Your task to perform on an android device: allow notifications from all sites in the chrome app Image 0: 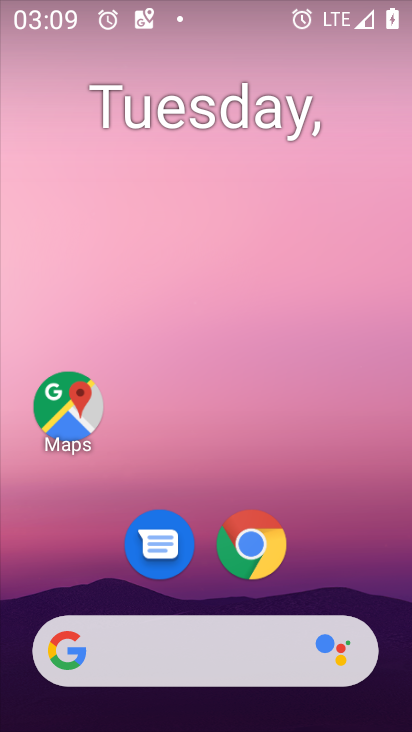
Step 0: drag from (342, 554) to (235, 25)
Your task to perform on an android device: allow notifications from all sites in the chrome app Image 1: 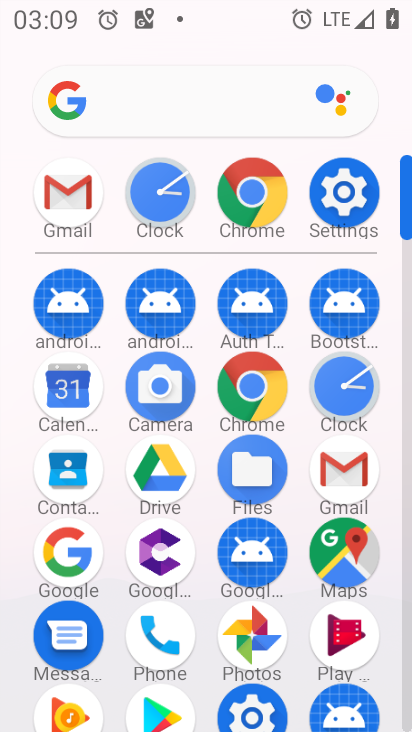
Step 1: drag from (16, 579) to (26, 243)
Your task to perform on an android device: allow notifications from all sites in the chrome app Image 2: 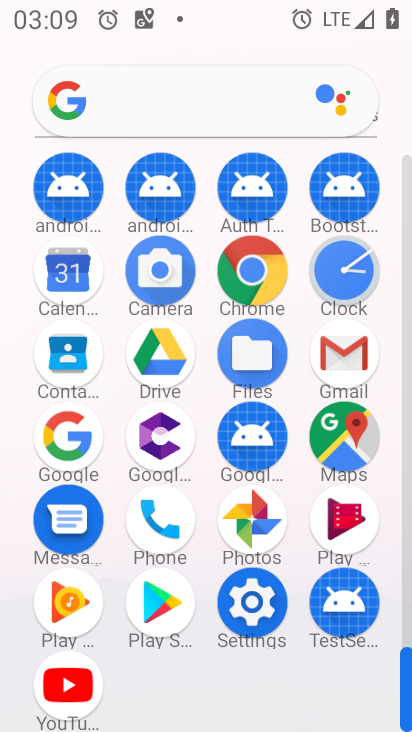
Step 2: click (248, 602)
Your task to perform on an android device: allow notifications from all sites in the chrome app Image 3: 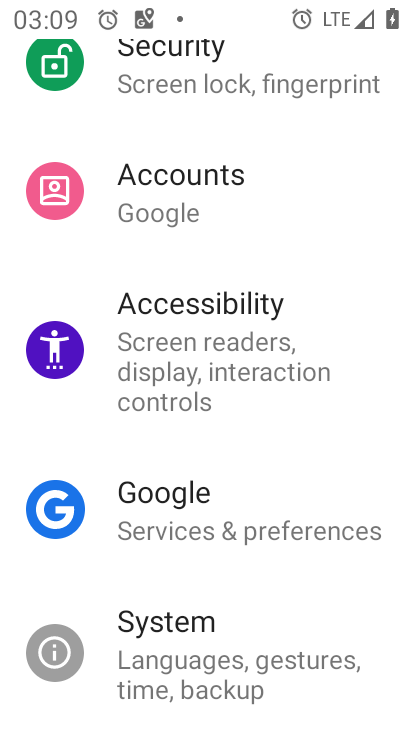
Step 3: drag from (322, 610) to (285, 189)
Your task to perform on an android device: allow notifications from all sites in the chrome app Image 4: 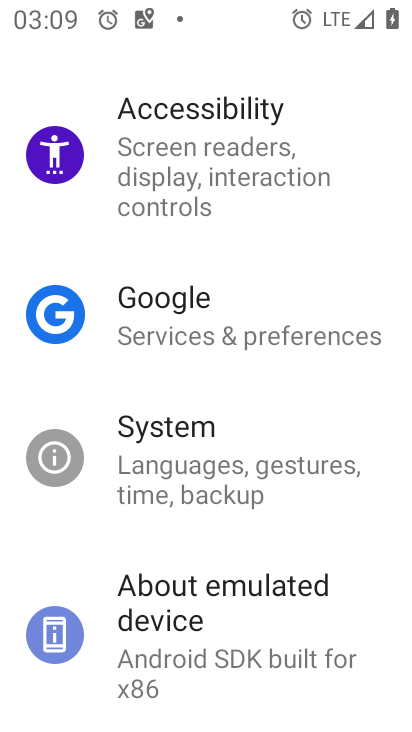
Step 4: press back button
Your task to perform on an android device: allow notifications from all sites in the chrome app Image 5: 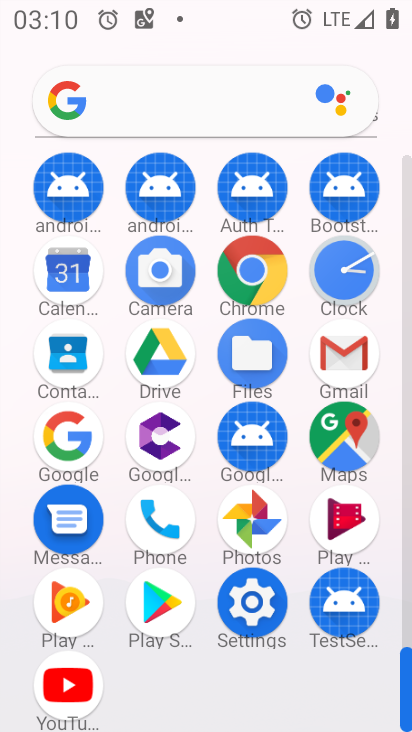
Step 5: click (248, 265)
Your task to perform on an android device: allow notifications from all sites in the chrome app Image 6: 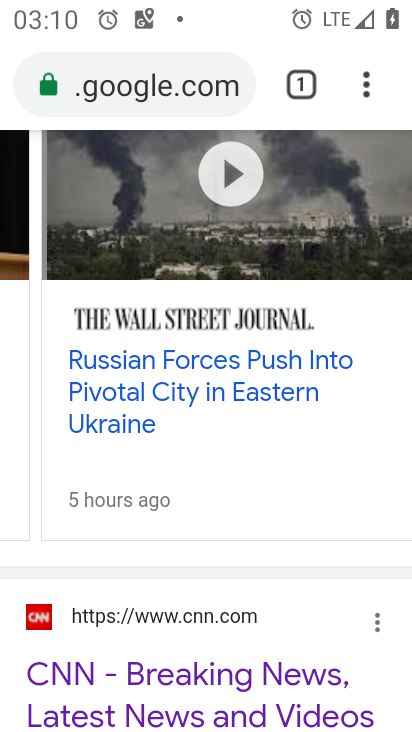
Step 6: drag from (368, 76) to (196, 573)
Your task to perform on an android device: allow notifications from all sites in the chrome app Image 7: 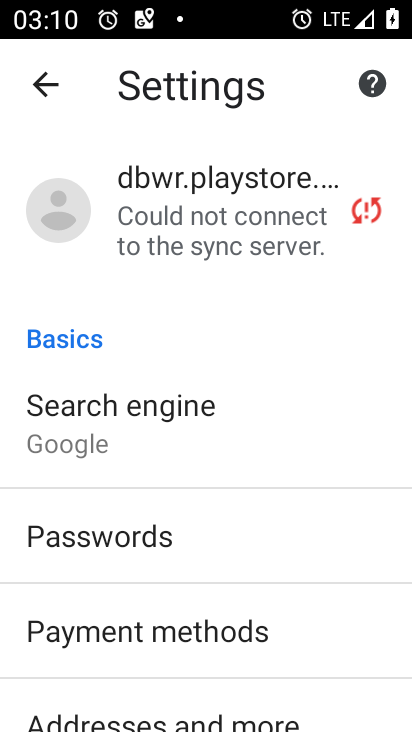
Step 7: drag from (239, 563) to (218, 128)
Your task to perform on an android device: allow notifications from all sites in the chrome app Image 8: 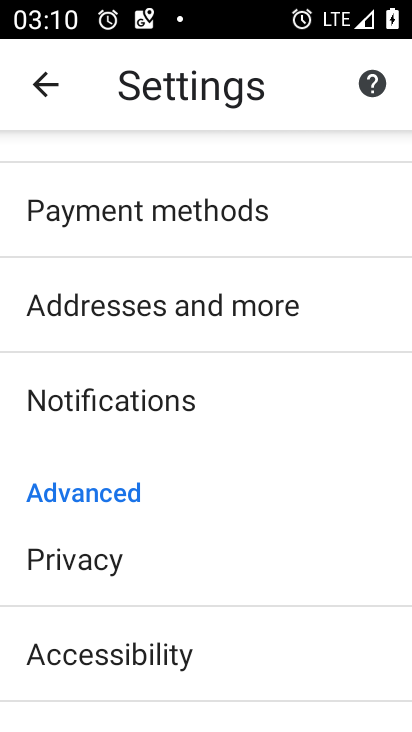
Step 8: drag from (247, 610) to (248, 208)
Your task to perform on an android device: allow notifications from all sites in the chrome app Image 9: 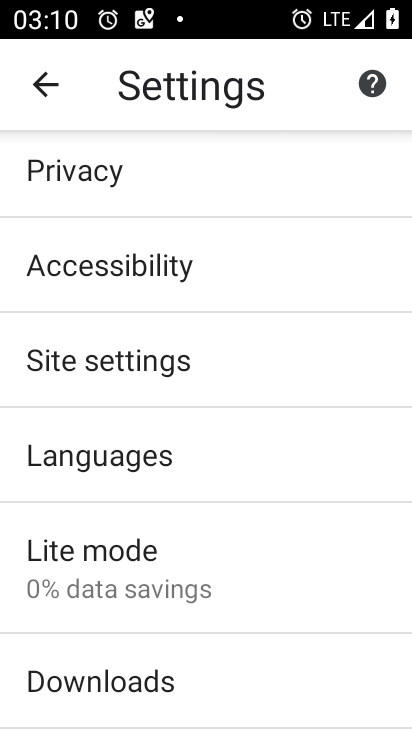
Step 9: drag from (191, 576) to (227, 228)
Your task to perform on an android device: allow notifications from all sites in the chrome app Image 10: 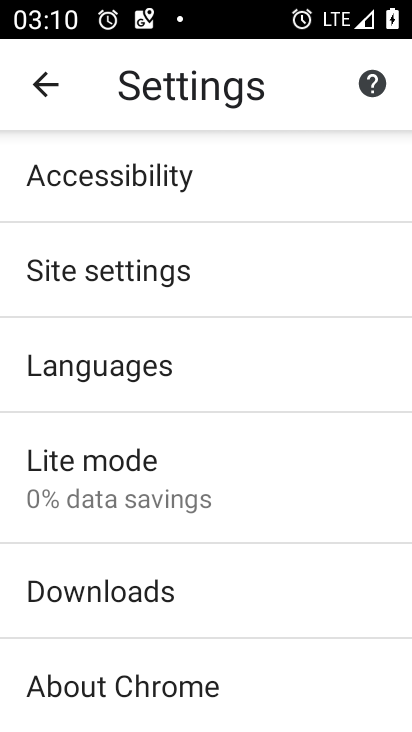
Step 10: drag from (240, 252) to (228, 572)
Your task to perform on an android device: allow notifications from all sites in the chrome app Image 11: 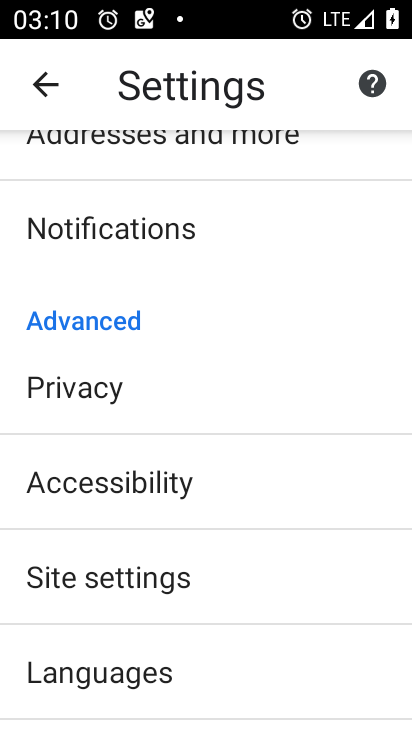
Step 11: click (164, 222)
Your task to perform on an android device: allow notifications from all sites in the chrome app Image 12: 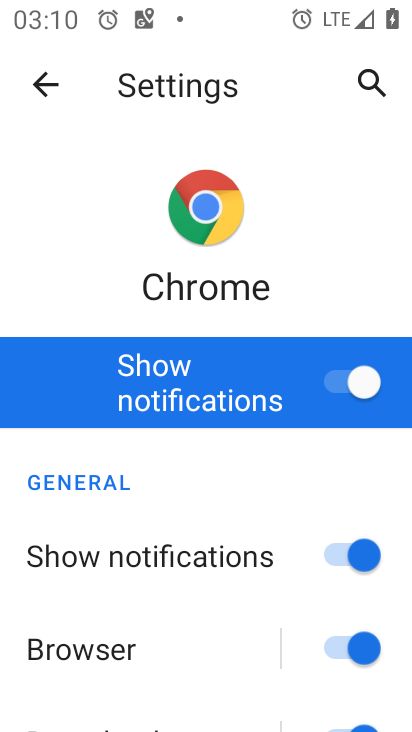
Step 12: drag from (210, 659) to (240, 180)
Your task to perform on an android device: allow notifications from all sites in the chrome app Image 13: 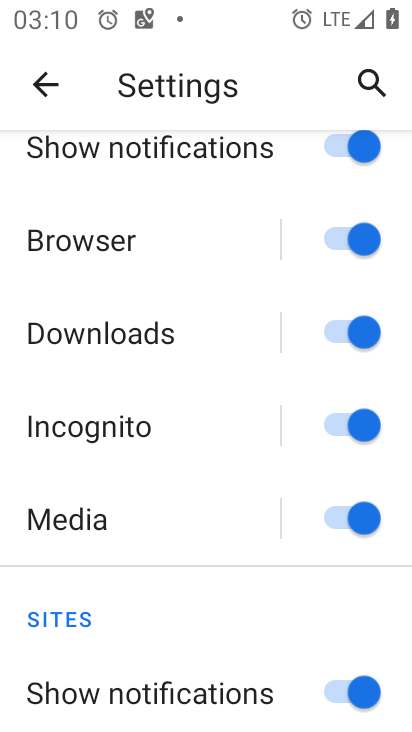
Step 13: drag from (225, 594) to (242, 170)
Your task to perform on an android device: allow notifications from all sites in the chrome app Image 14: 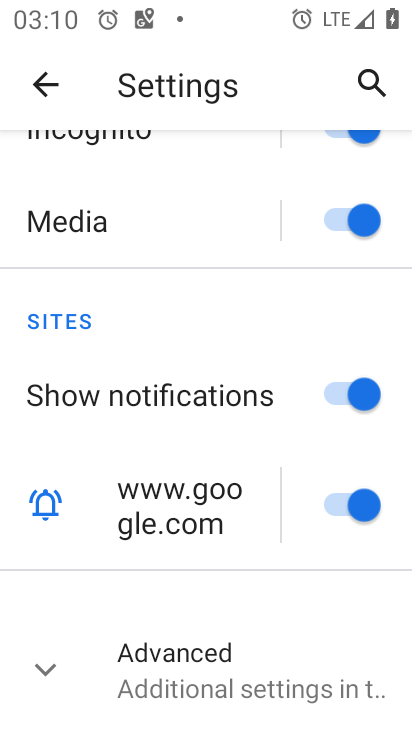
Step 14: click (49, 668)
Your task to perform on an android device: allow notifications from all sites in the chrome app Image 15: 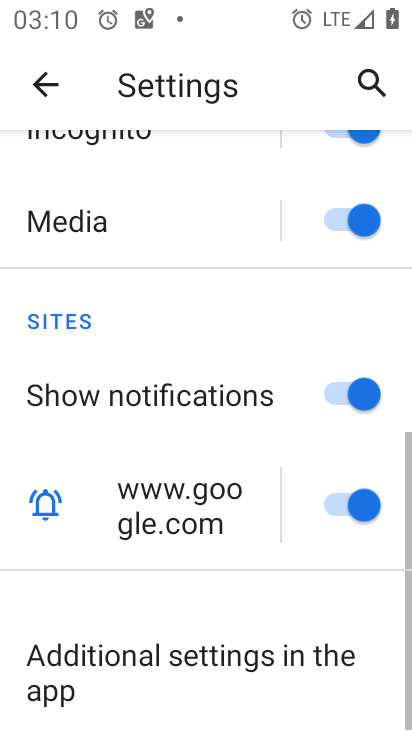
Step 15: task complete